Your task to perform on an android device: turn on airplane mode Image 0: 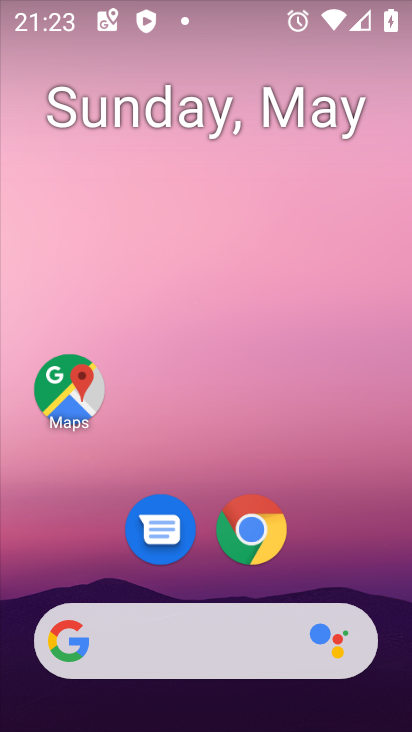
Step 0: drag from (341, 548) to (317, 3)
Your task to perform on an android device: turn on airplane mode Image 1: 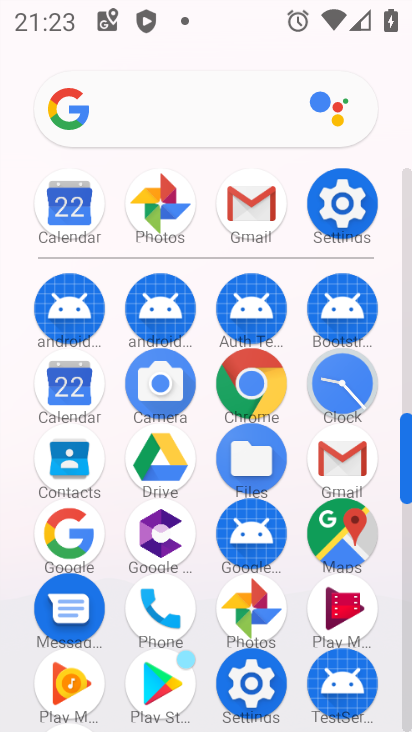
Step 1: click (346, 208)
Your task to perform on an android device: turn on airplane mode Image 2: 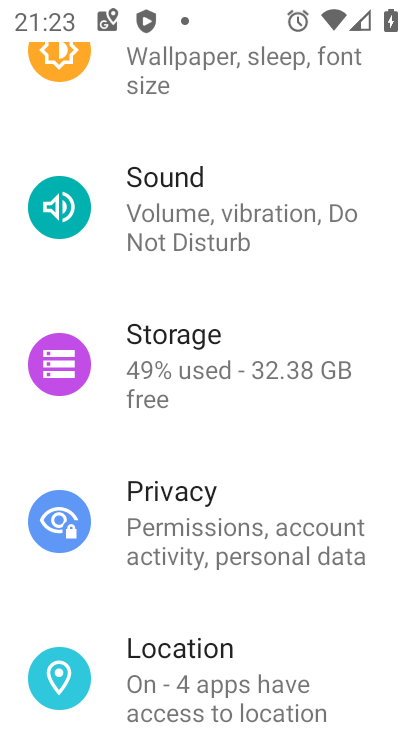
Step 2: drag from (368, 169) to (367, 533)
Your task to perform on an android device: turn on airplane mode Image 3: 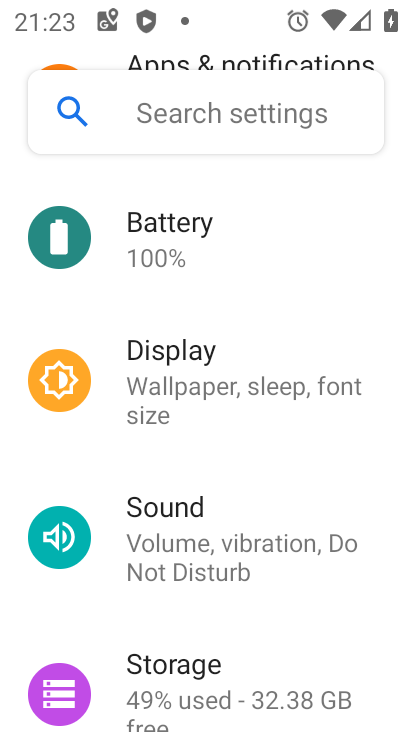
Step 3: drag from (280, 279) to (282, 629)
Your task to perform on an android device: turn on airplane mode Image 4: 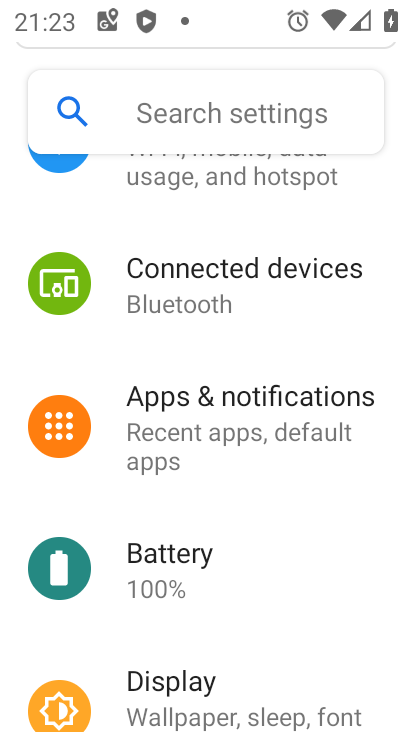
Step 4: drag from (256, 265) to (291, 573)
Your task to perform on an android device: turn on airplane mode Image 5: 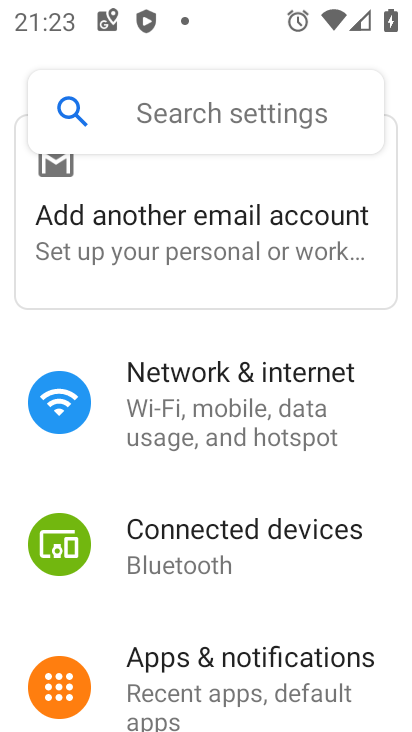
Step 5: click (233, 428)
Your task to perform on an android device: turn on airplane mode Image 6: 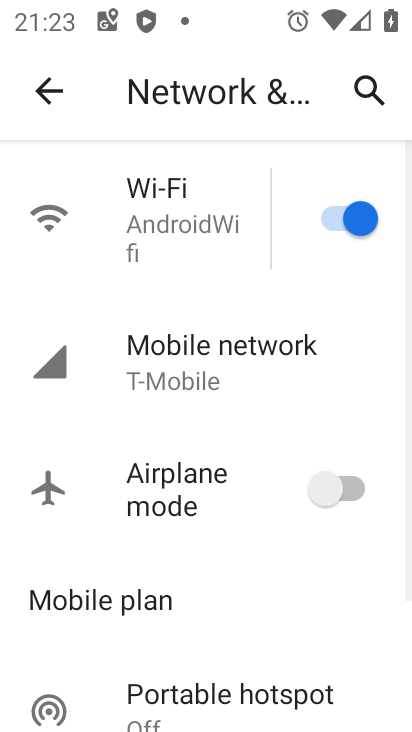
Step 6: click (312, 493)
Your task to perform on an android device: turn on airplane mode Image 7: 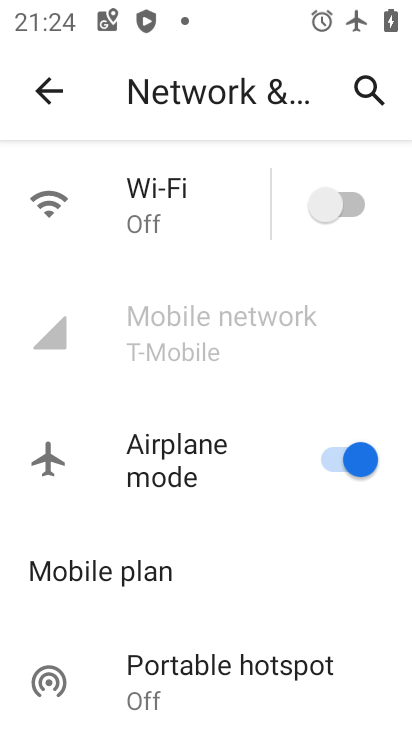
Step 7: task complete